Your task to perform on an android device: toggle improve location accuracy Image 0: 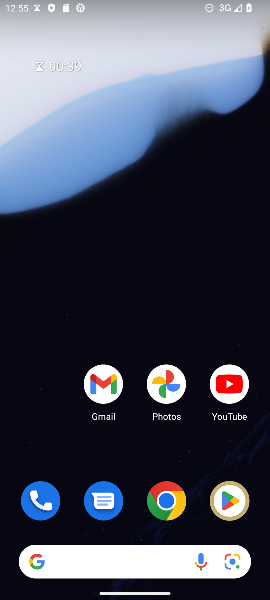
Step 0: drag from (128, 410) to (226, 0)
Your task to perform on an android device: toggle improve location accuracy Image 1: 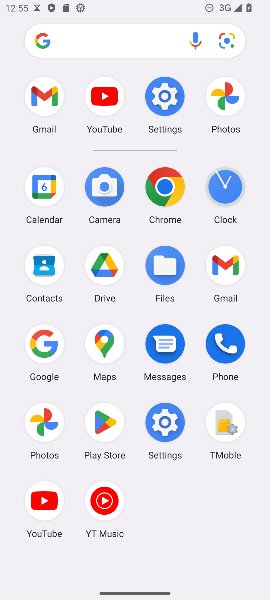
Step 1: click (168, 101)
Your task to perform on an android device: toggle improve location accuracy Image 2: 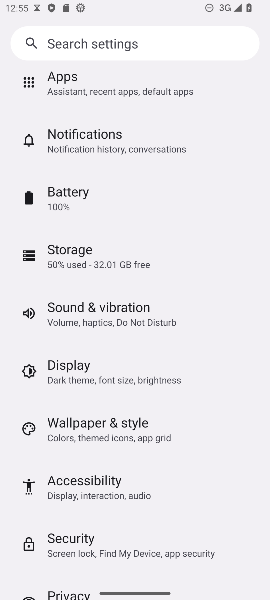
Step 2: click (92, 205)
Your task to perform on an android device: toggle improve location accuracy Image 3: 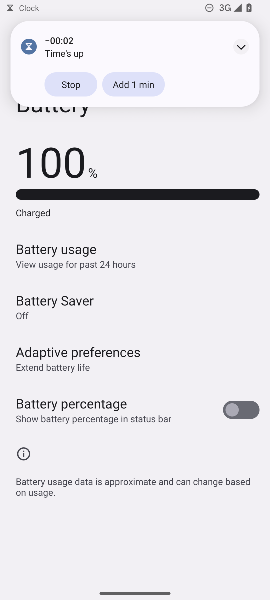
Step 3: click (20, 28)
Your task to perform on an android device: toggle improve location accuracy Image 4: 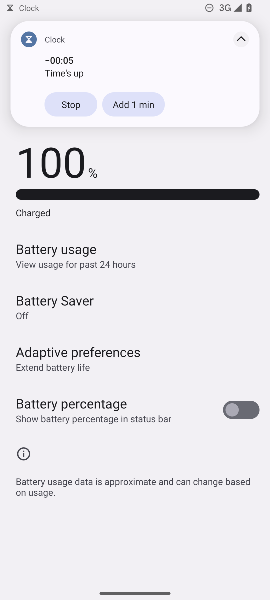
Step 4: click (69, 106)
Your task to perform on an android device: toggle improve location accuracy Image 5: 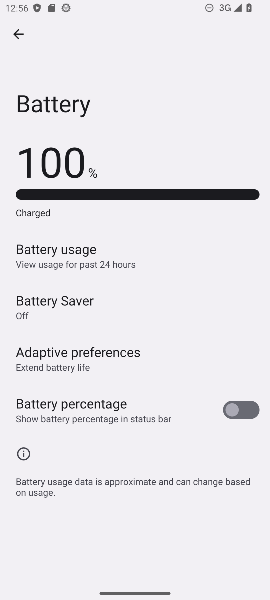
Step 5: click (14, 33)
Your task to perform on an android device: toggle improve location accuracy Image 6: 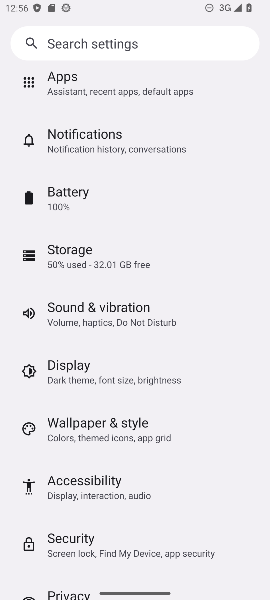
Step 6: drag from (124, 529) to (113, 294)
Your task to perform on an android device: toggle improve location accuracy Image 7: 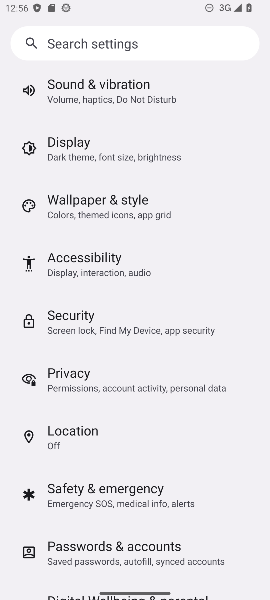
Step 7: click (77, 444)
Your task to perform on an android device: toggle improve location accuracy Image 8: 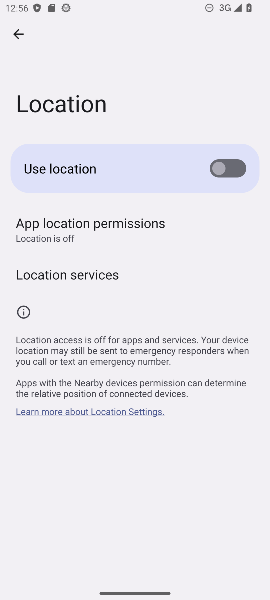
Step 8: click (73, 274)
Your task to perform on an android device: toggle improve location accuracy Image 9: 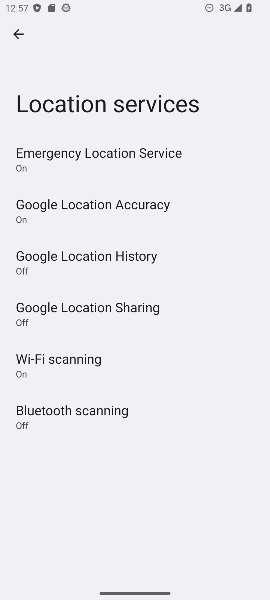
Step 9: click (142, 211)
Your task to perform on an android device: toggle improve location accuracy Image 10: 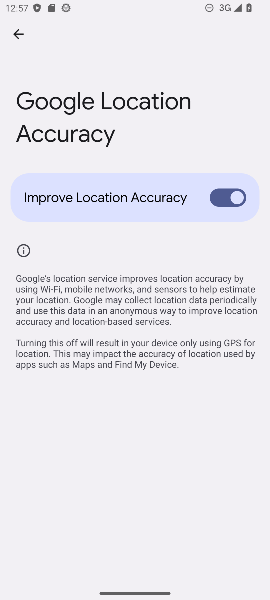
Step 10: click (217, 202)
Your task to perform on an android device: toggle improve location accuracy Image 11: 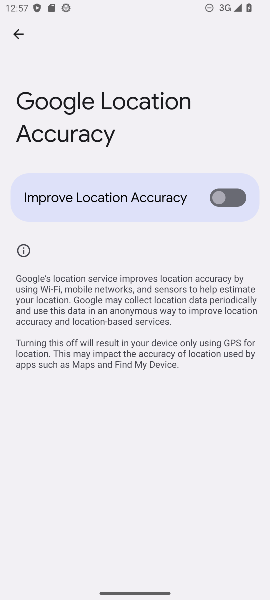
Step 11: task complete